Your task to perform on an android device: Open Google Image 0: 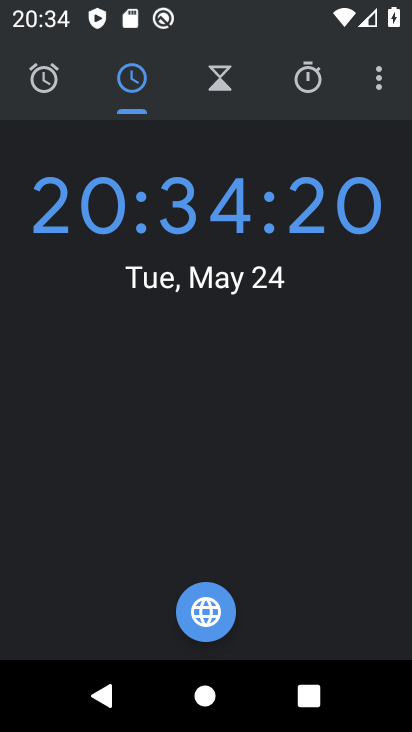
Step 0: press home button
Your task to perform on an android device: Open Google Image 1: 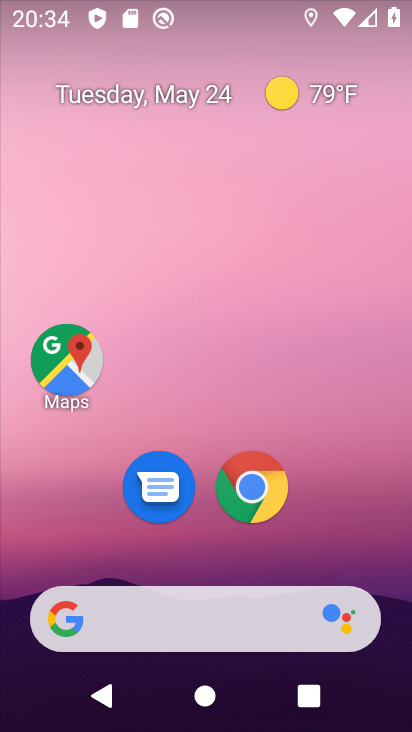
Step 1: drag from (273, 534) to (258, 45)
Your task to perform on an android device: Open Google Image 2: 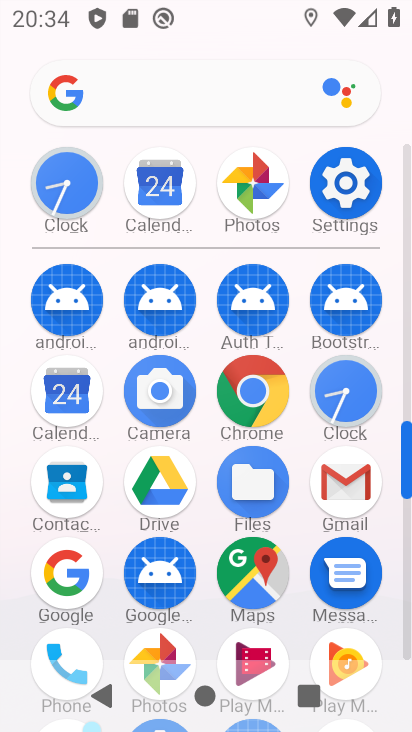
Step 2: click (64, 579)
Your task to perform on an android device: Open Google Image 3: 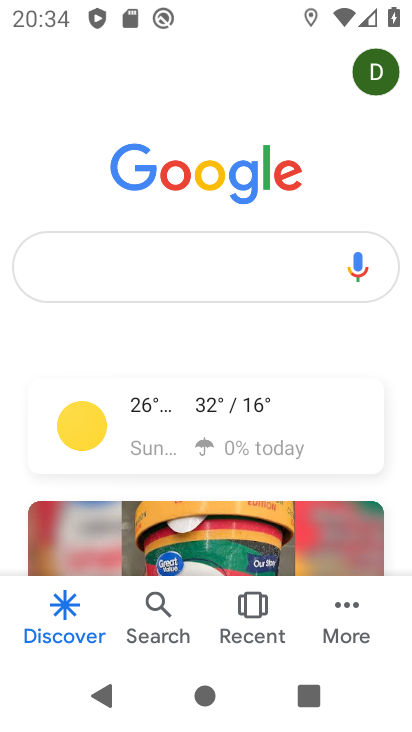
Step 3: task complete